Your task to perform on an android device: open device folders in google photos Image 0: 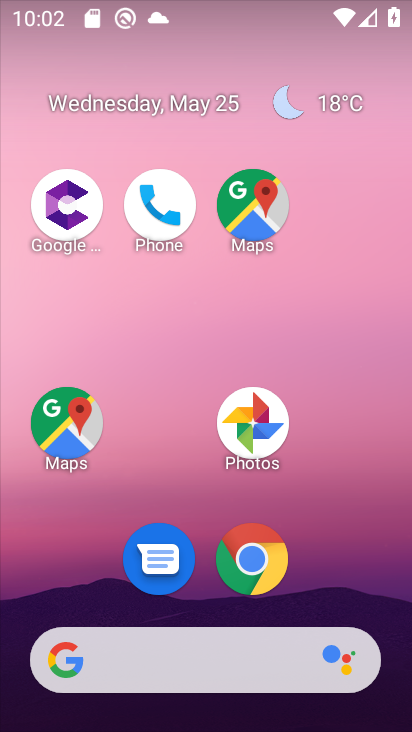
Step 0: click (255, 437)
Your task to perform on an android device: open device folders in google photos Image 1: 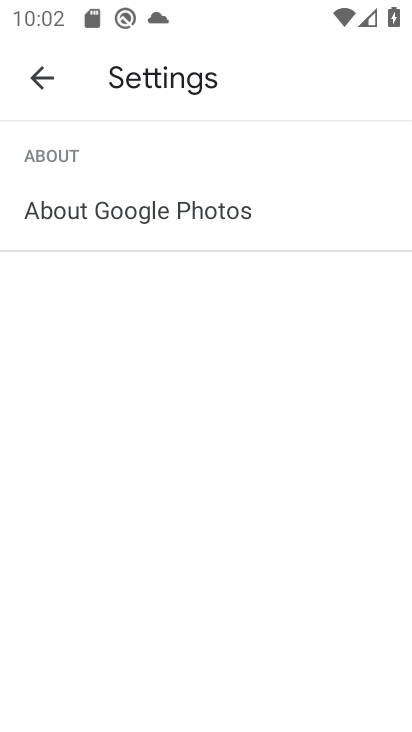
Step 1: click (41, 79)
Your task to perform on an android device: open device folders in google photos Image 2: 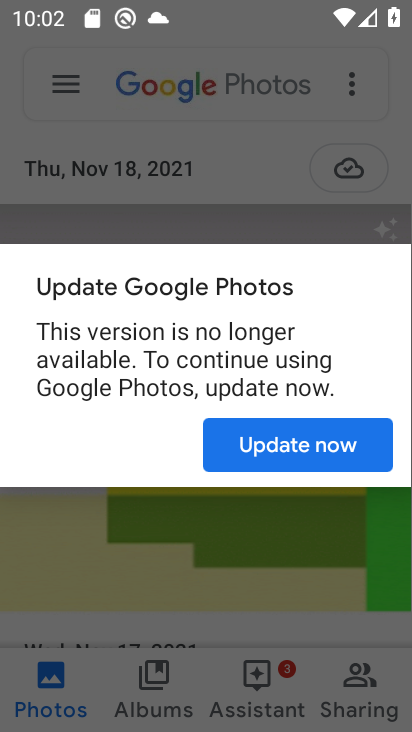
Step 2: click (304, 441)
Your task to perform on an android device: open device folders in google photos Image 3: 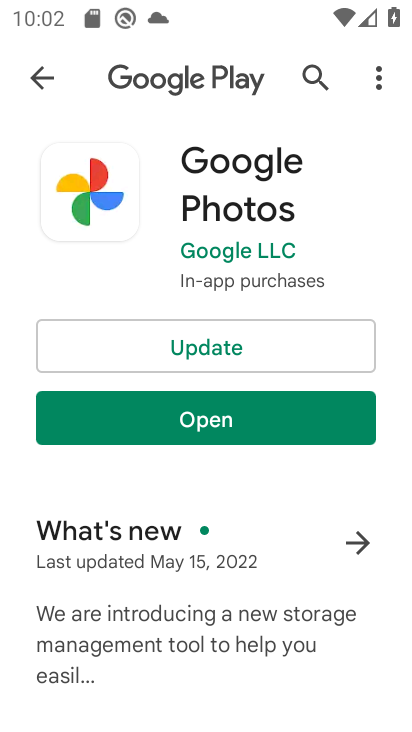
Step 3: click (290, 334)
Your task to perform on an android device: open device folders in google photos Image 4: 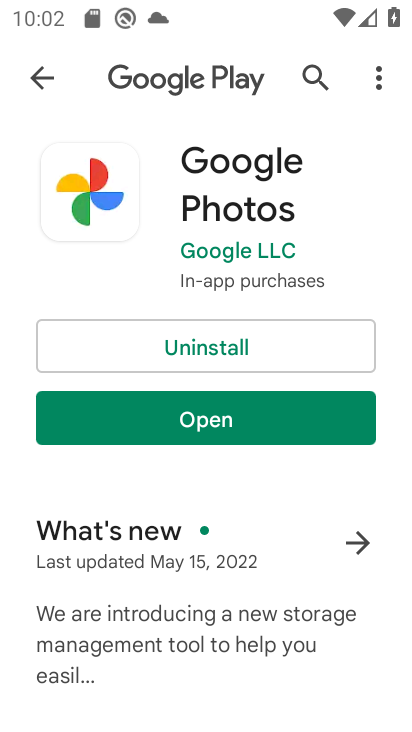
Step 4: click (275, 417)
Your task to perform on an android device: open device folders in google photos Image 5: 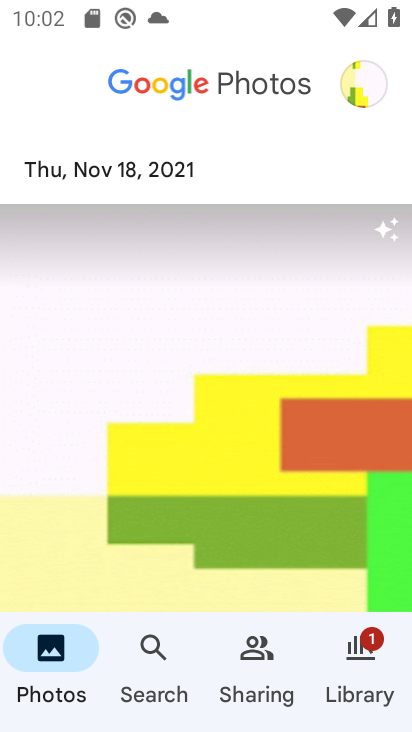
Step 5: click (367, 87)
Your task to perform on an android device: open device folders in google photos Image 6: 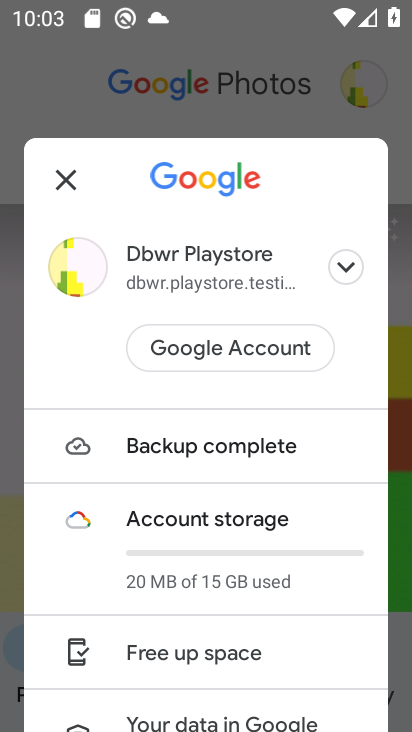
Step 6: click (69, 181)
Your task to perform on an android device: open device folders in google photos Image 7: 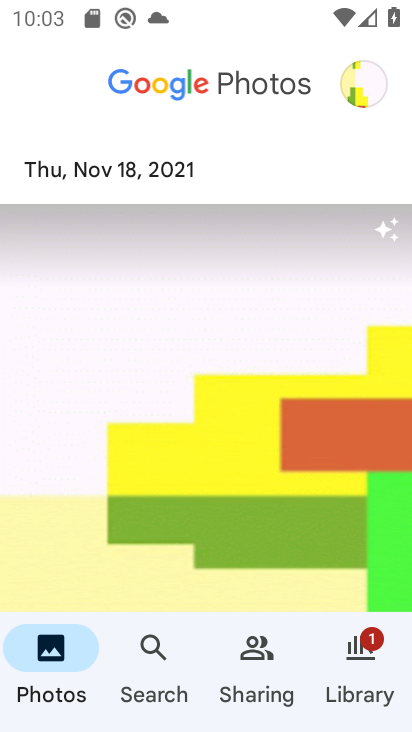
Step 7: click (147, 647)
Your task to perform on an android device: open device folders in google photos Image 8: 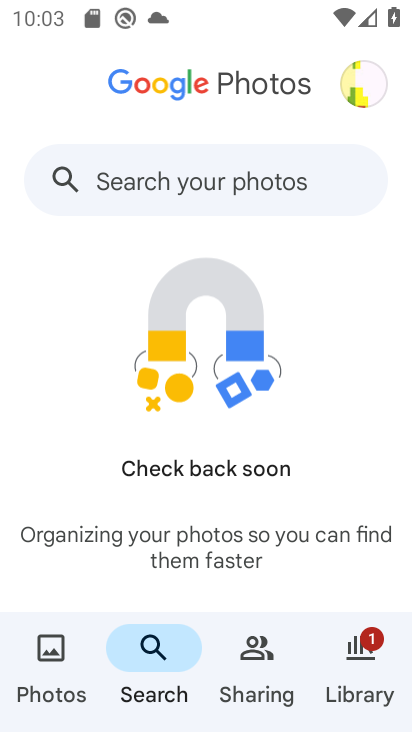
Step 8: click (237, 185)
Your task to perform on an android device: open device folders in google photos Image 9: 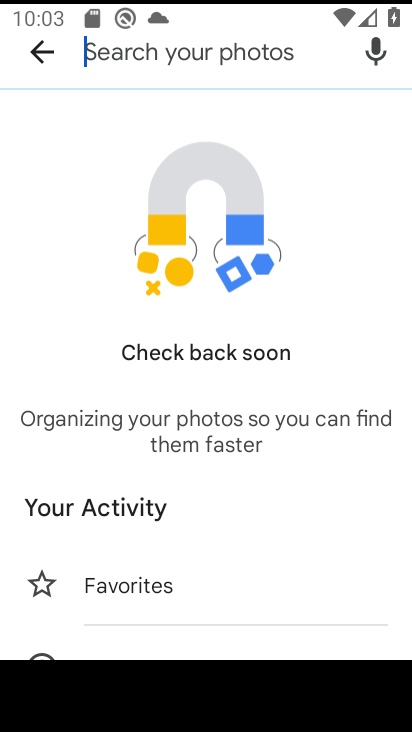
Step 9: type "device folders"
Your task to perform on an android device: open device folders in google photos Image 10: 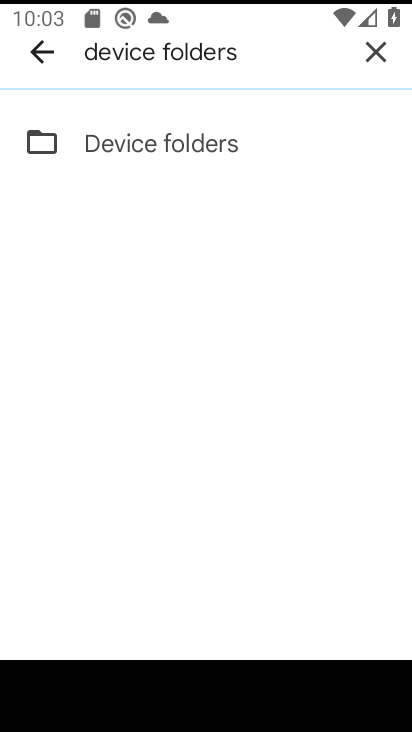
Step 10: click (218, 146)
Your task to perform on an android device: open device folders in google photos Image 11: 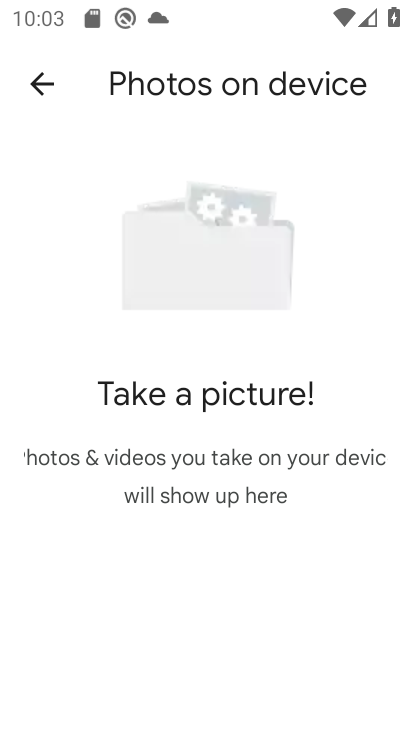
Step 11: task complete